Your task to perform on an android device: toggle priority inbox in the gmail app Image 0: 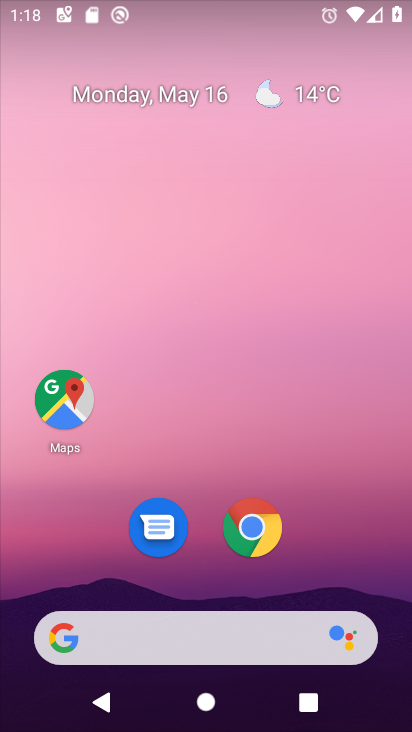
Step 0: drag from (251, 565) to (102, 30)
Your task to perform on an android device: toggle priority inbox in the gmail app Image 1: 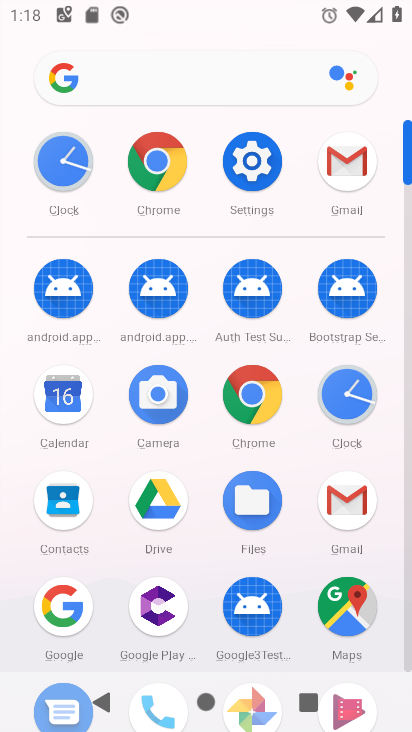
Step 1: drag from (201, 625) to (215, 288)
Your task to perform on an android device: toggle priority inbox in the gmail app Image 2: 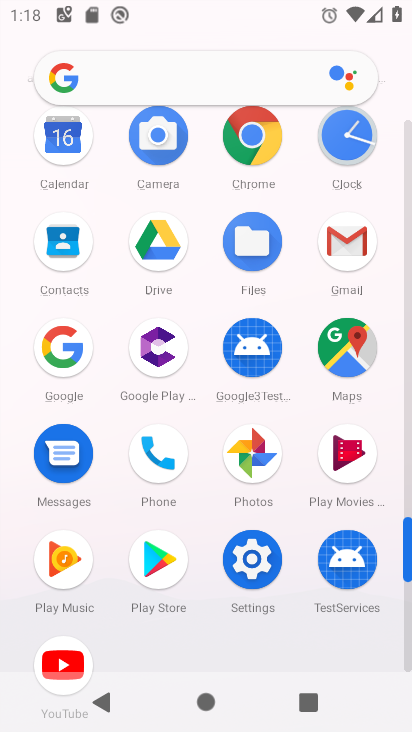
Step 2: drag from (182, 290) to (203, 380)
Your task to perform on an android device: toggle priority inbox in the gmail app Image 3: 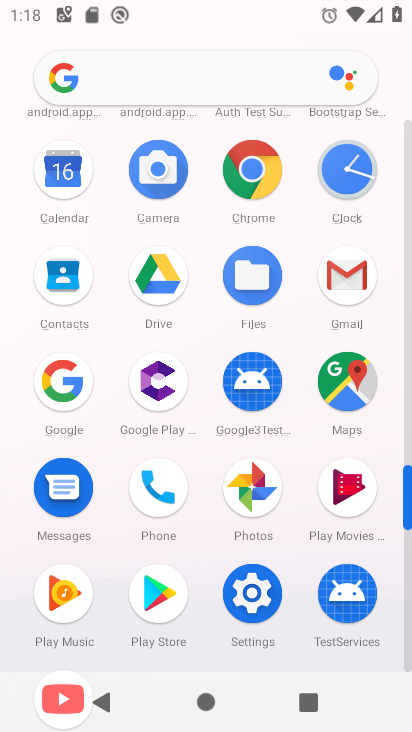
Step 3: click (348, 293)
Your task to perform on an android device: toggle priority inbox in the gmail app Image 4: 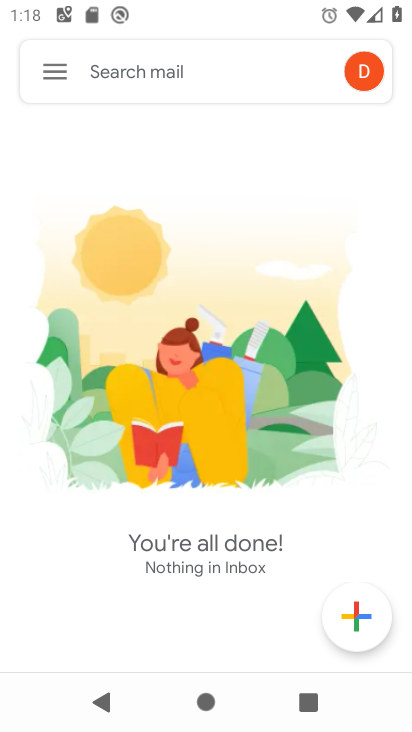
Step 4: click (49, 78)
Your task to perform on an android device: toggle priority inbox in the gmail app Image 5: 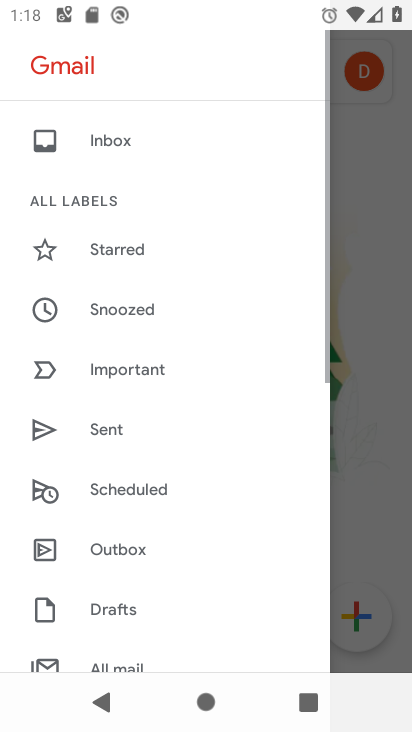
Step 5: drag from (91, 611) to (129, 182)
Your task to perform on an android device: toggle priority inbox in the gmail app Image 6: 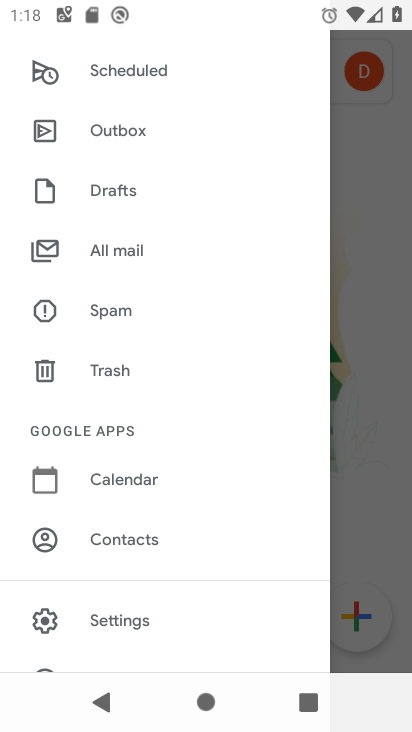
Step 6: click (124, 621)
Your task to perform on an android device: toggle priority inbox in the gmail app Image 7: 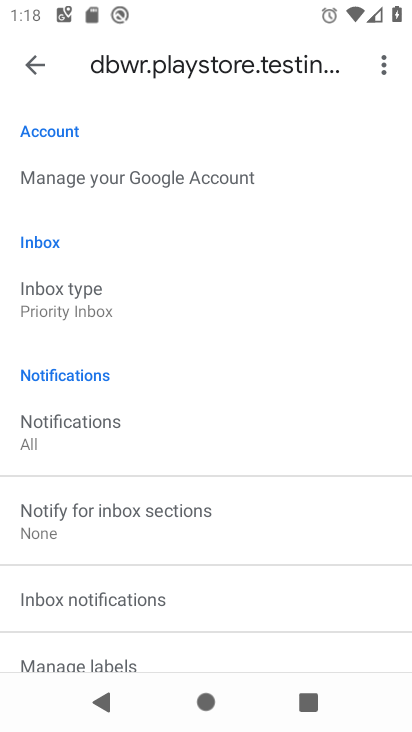
Step 7: click (87, 310)
Your task to perform on an android device: toggle priority inbox in the gmail app Image 8: 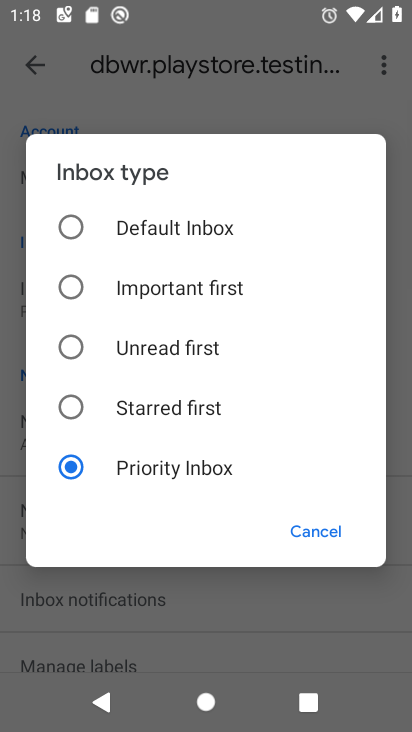
Step 8: click (181, 223)
Your task to perform on an android device: toggle priority inbox in the gmail app Image 9: 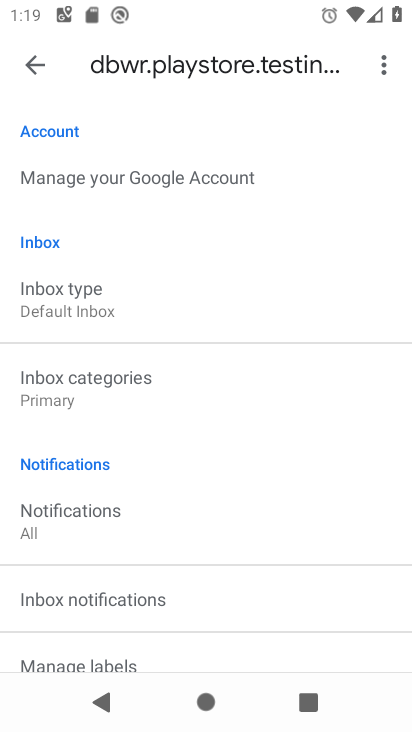
Step 9: task complete